Your task to perform on an android device: find snoozed emails in the gmail app Image 0: 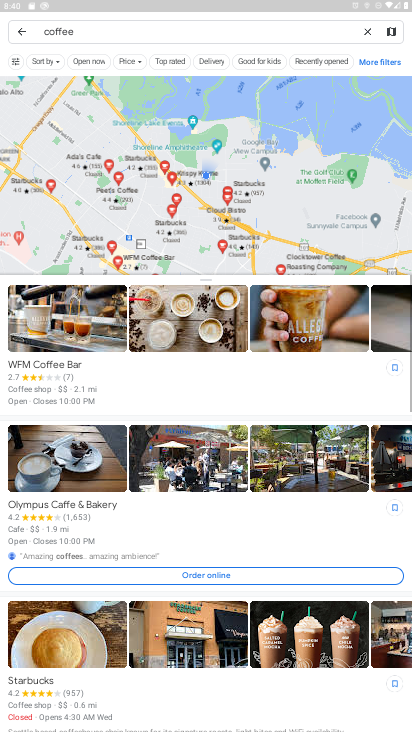
Step 0: press home button
Your task to perform on an android device: find snoozed emails in the gmail app Image 1: 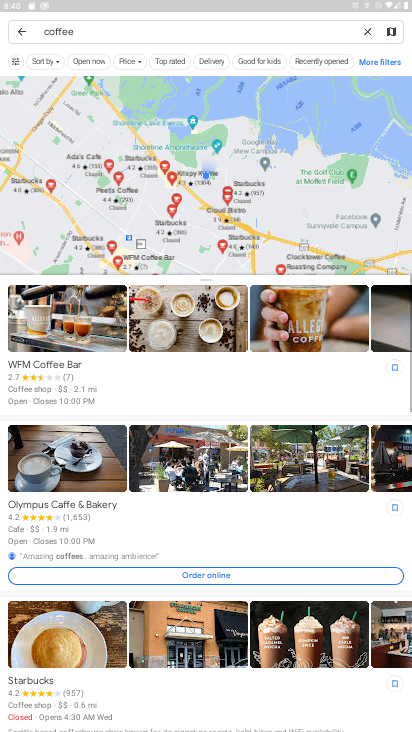
Step 1: drag from (396, 686) to (198, 15)
Your task to perform on an android device: find snoozed emails in the gmail app Image 2: 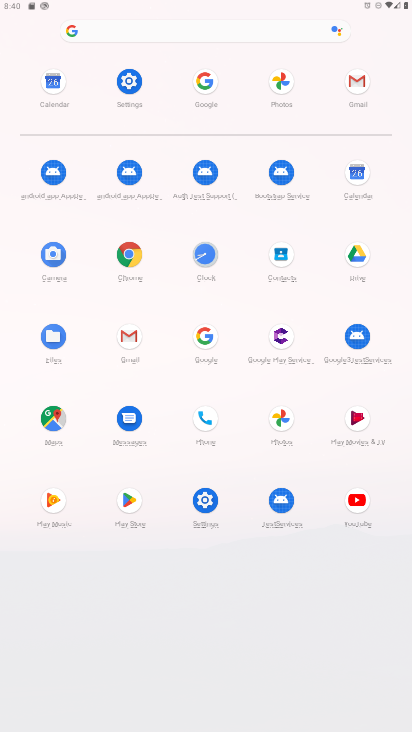
Step 2: click (120, 341)
Your task to perform on an android device: find snoozed emails in the gmail app Image 3: 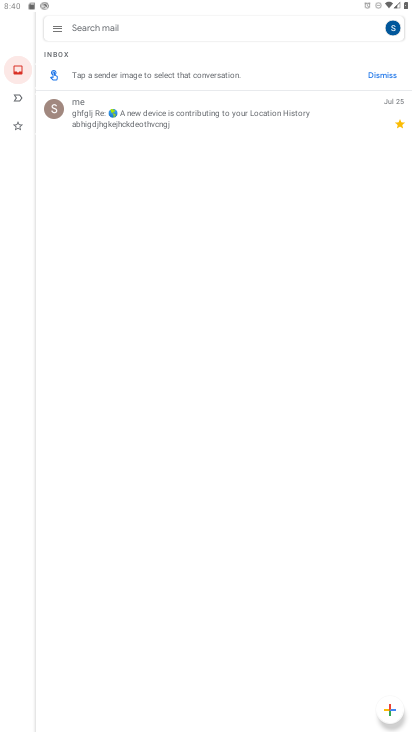
Step 3: click (52, 30)
Your task to perform on an android device: find snoozed emails in the gmail app Image 4: 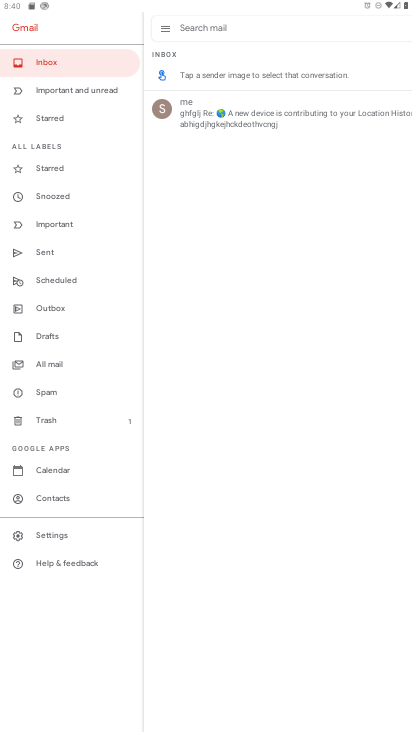
Step 4: click (63, 199)
Your task to perform on an android device: find snoozed emails in the gmail app Image 5: 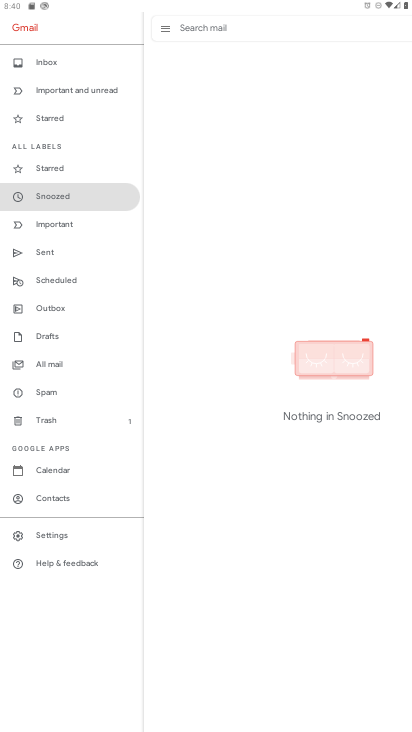
Step 5: task complete